Your task to perform on an android device: Open Google Chrome and click the shortcut for Amazon.com Image 0: 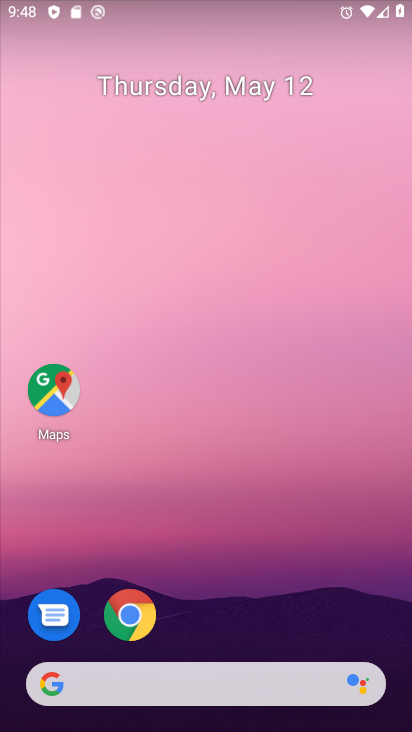
Step 0: click (137, 622)
Your task to perform on an android device: Open Google Chrome and click the shortcut for Amazon.com Image 1: 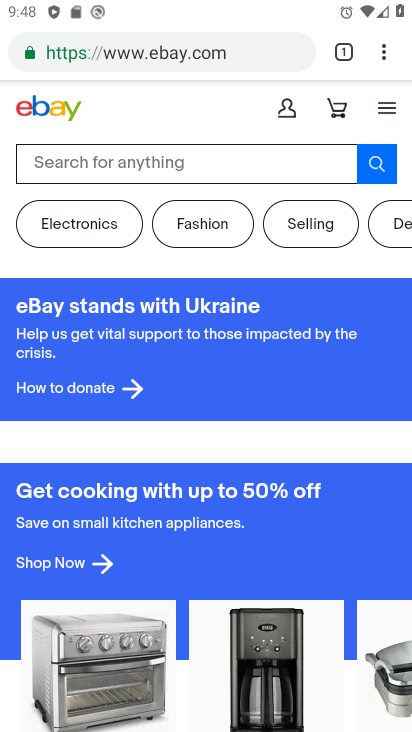
Step 1: click (221, 62)
Your task to perform on an android device: Open Google Chrome and click the shortcut for Amazon.com Image 2: 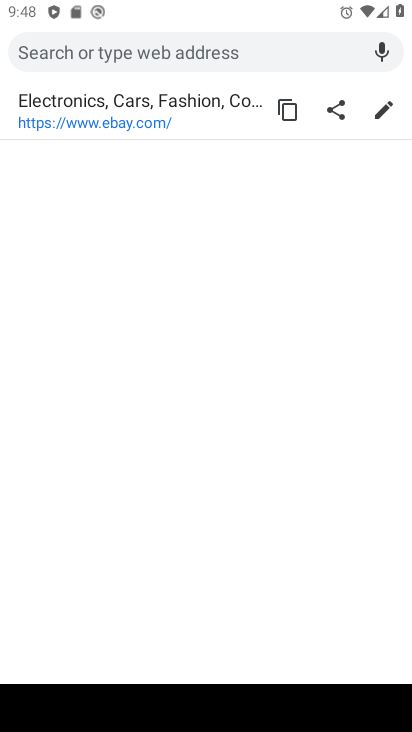
Step 2: type "amazon"
Your task to perform on an android device: Open Google Chrome and click the shortcut for Amazon.com Image 3: 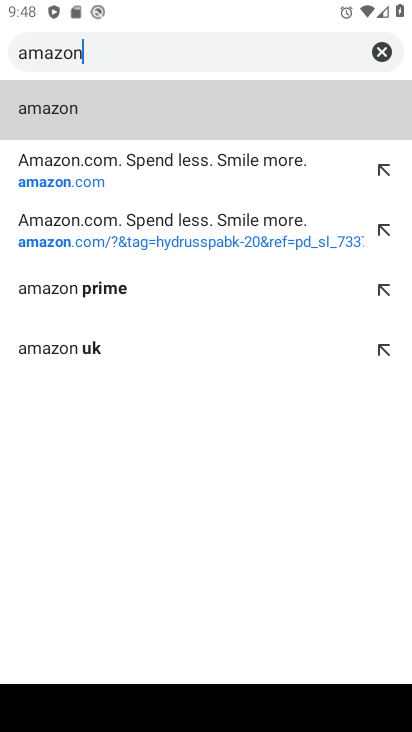
Step 3: click (48, 117)
Your task to perform on an android device: Open Google Chrome and click the shortcut for Amazon.com Image 4: 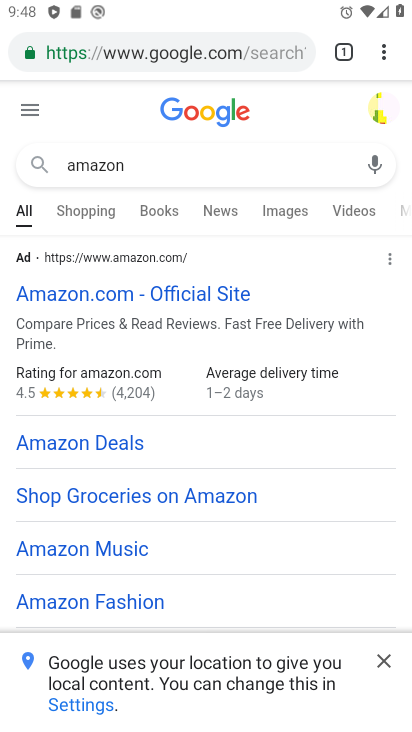
Step 4: drag from (192, 544) to (283, 165)
Your task to perform on an android device: Open Google Chrome and click the shortcut for Amazon.com Image 5: 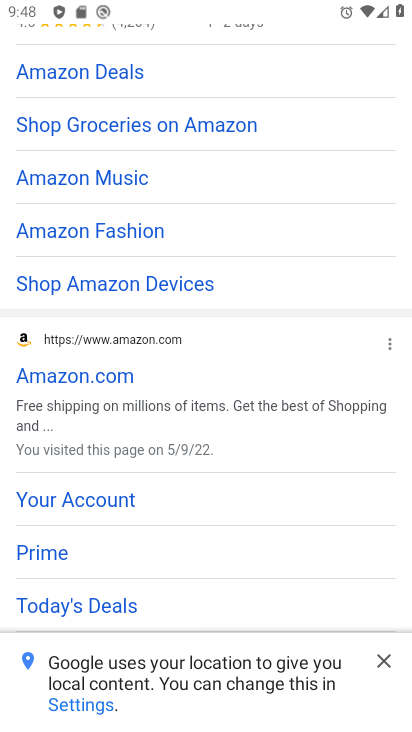
Step 5: click (96, 378)
Your task to perform on an android device: Open Google Chrome and click the shortcut for Amazon.com Image 6: 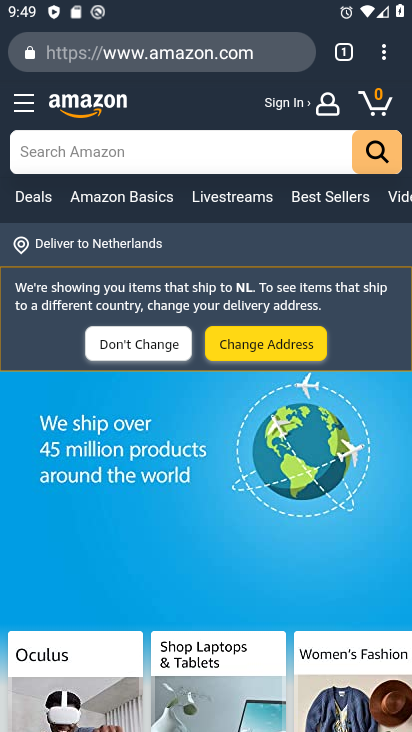
Step 6: task complete